Your task to perform on an android device: Open settings on Google Maps Image 0: 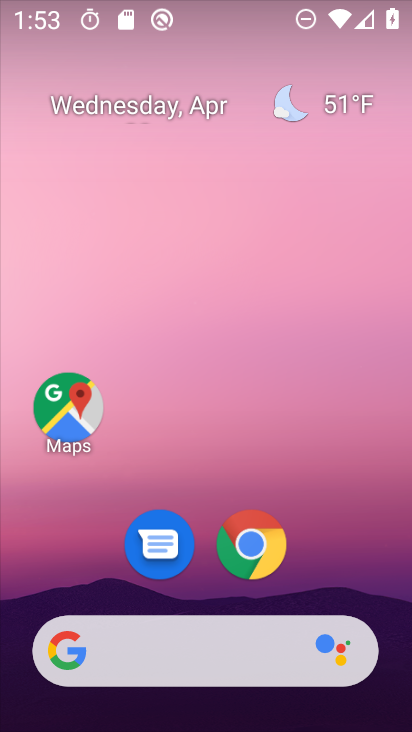
Step 0: drag from (324, 572) to (334, 153)
Your task to perform on an android device: Open settings on Google Maps Image 1: 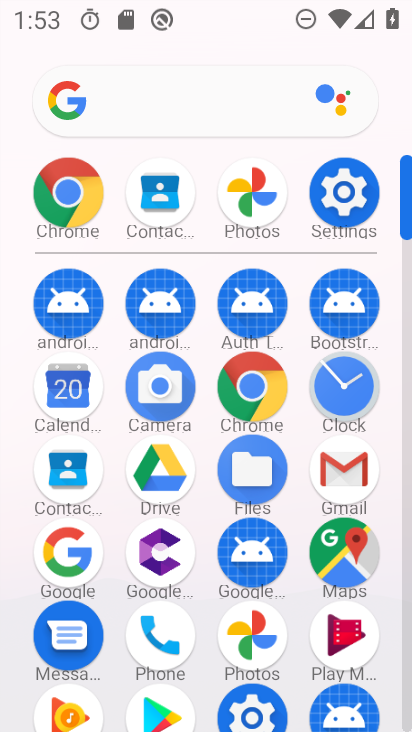
Step 1: click (353, 547)
Your task to perform on an android device: Open settings on Google Maps Image 2: 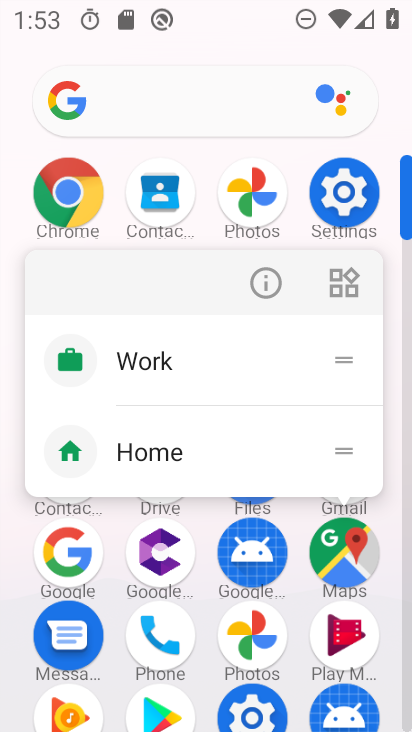
Step 2: click (351, 552)
Your task to perform on an android device: Open settings on Google Maps Image 3: 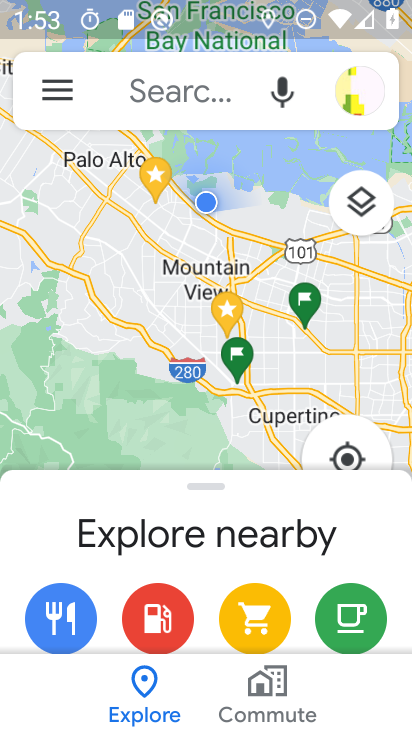
Step 3: click (68, 86)
Your task to perform on an android device: Open settings on Google Maps Image 4: 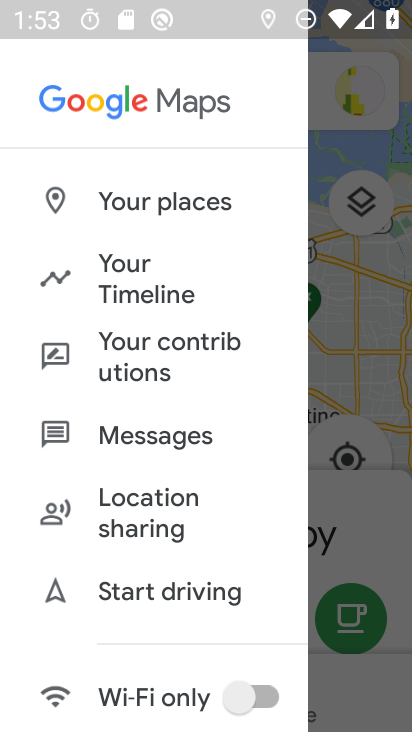
Step 4: drag from (243, 543) to (262, 392)
Your task to perform on an android device: Open settings on Google Maps Image 5: 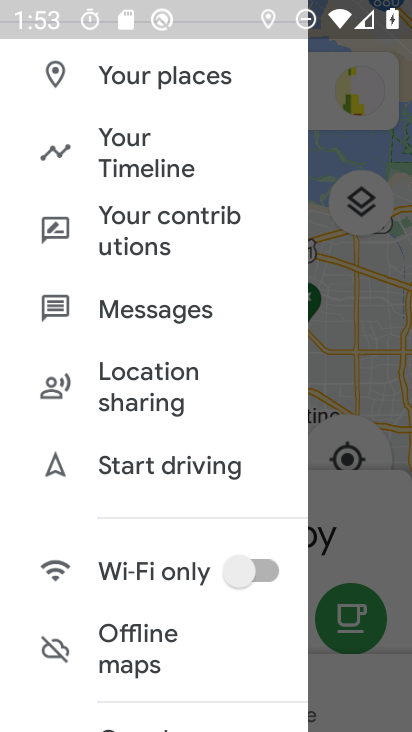
Step 5: drag from (282, 616) to (280, 458)
Your task to perform on an android device: Open settings on Google Maps Image 6: 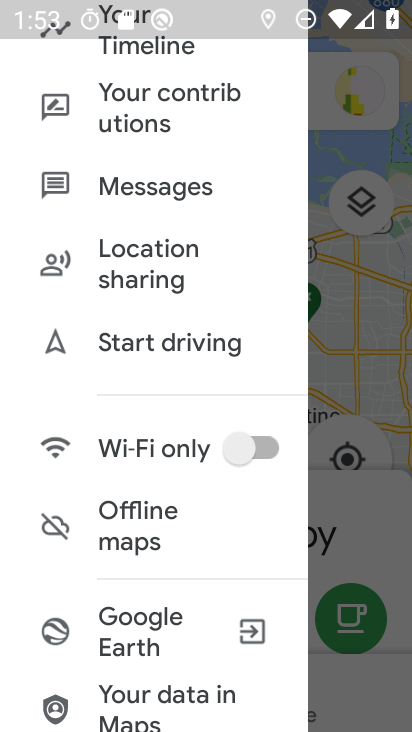
Step 6: drag from (203, 643) to (191, 413)
Your task to perform on an android device: Open settings on Google Maps Image 7: 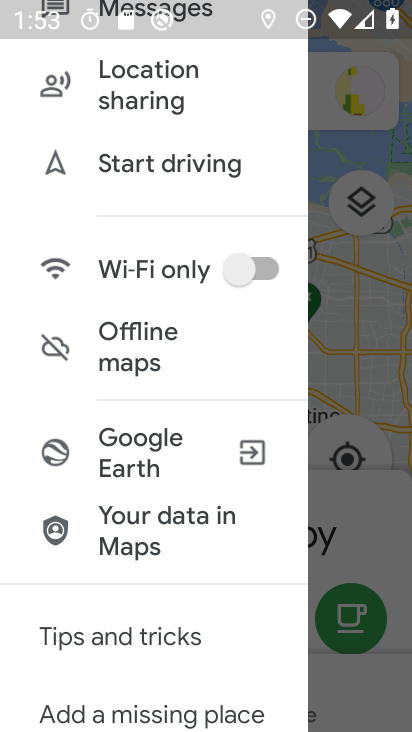
Step 7: drag from (204, 626) to (197, 385)
Your task to perform on an android device: Open settings on Google Maps Image 8: 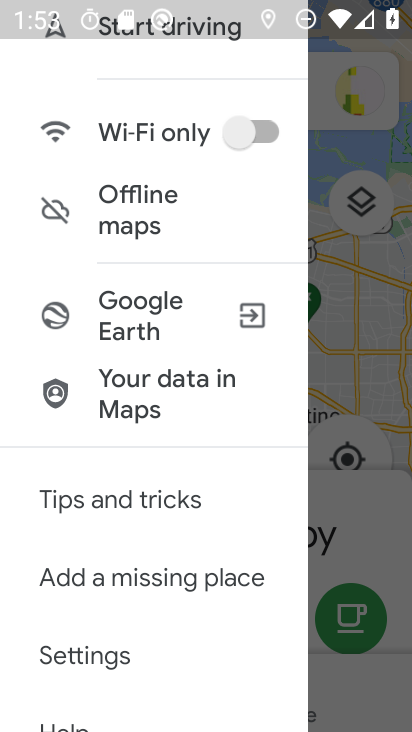
Step 8: click (105, 663)
Your task to perform on an android device: Open settings on Google Maps Image 9: 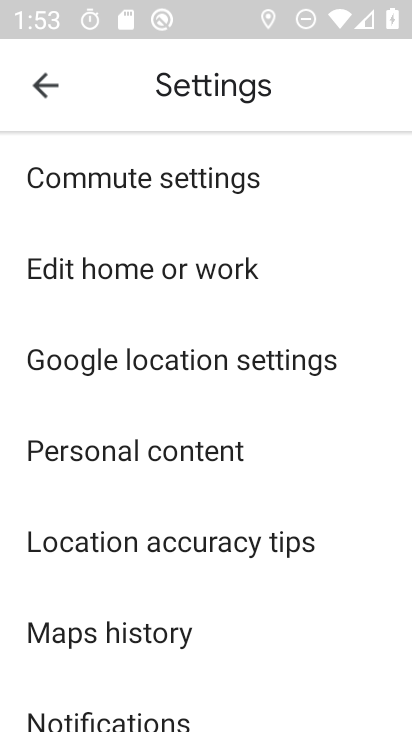
Step 9: task complete